Your task to perform on an android device: add a contact in the contacts app Image 0: 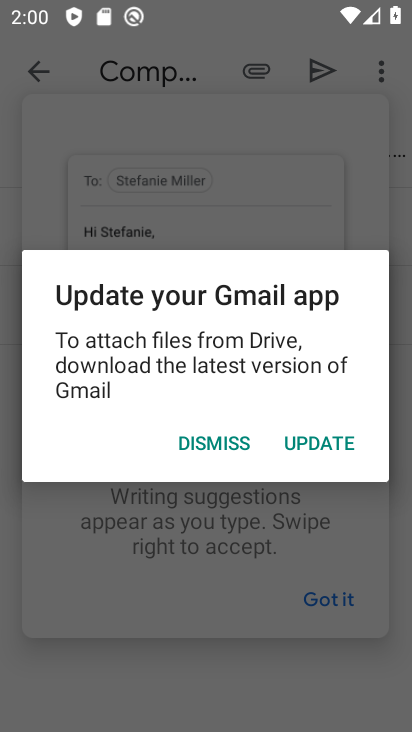
Step 0: press home button
Your task to perform on an android device: add a contact in the contacts app Image 1: 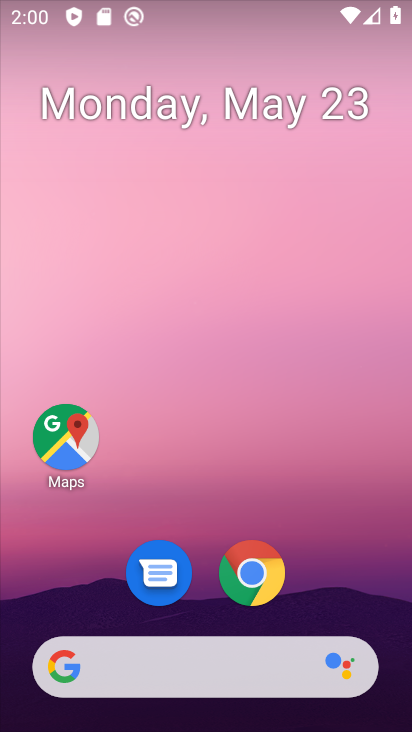
Step 1: drag from (378, 595) to (357, 123)
Your task to perform on an android device: add a contact in the contacts app Image 2: 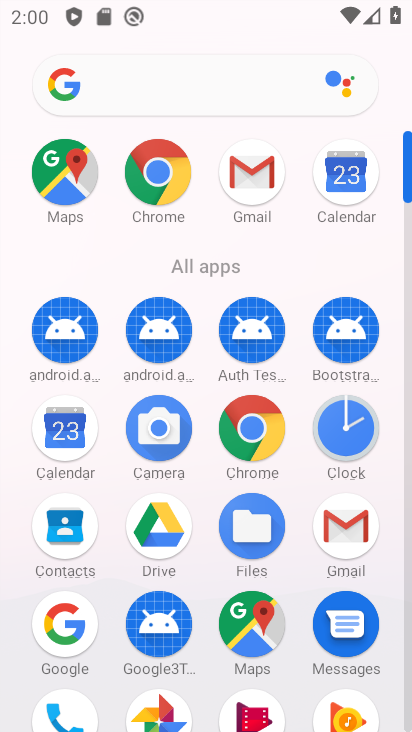
Step 2: click (68, 551)
Your task to perform on an android device: add a contact in the contacts app Image 3: 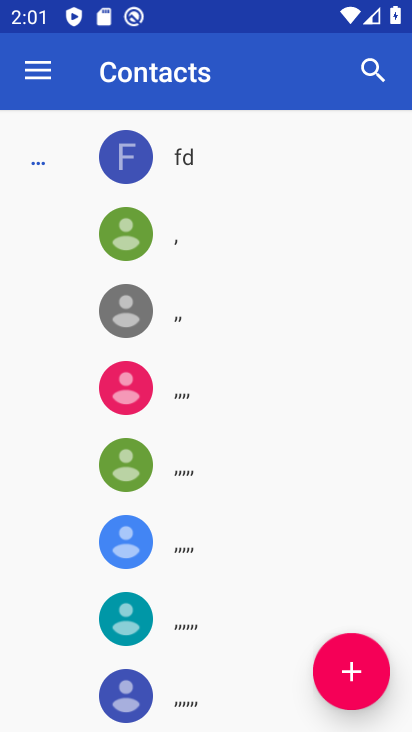
Step 3: click (354, 684)
Your task to perform on an android device: add a contact in the contacts app Image 4: 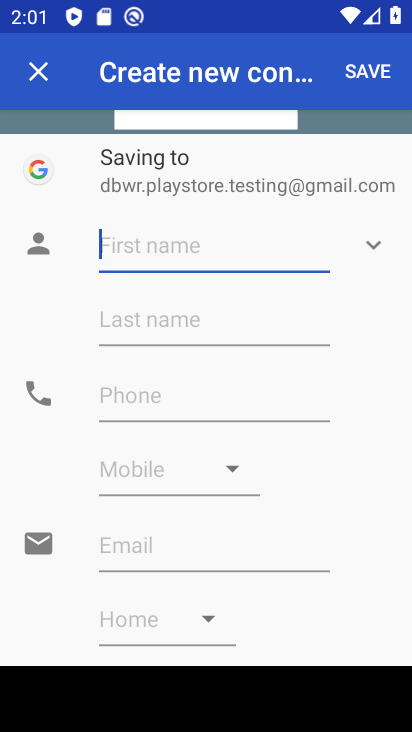
Step 4: click (220, 237)
Your task to perform on an android device: add a contact in the contacts app Image 5: 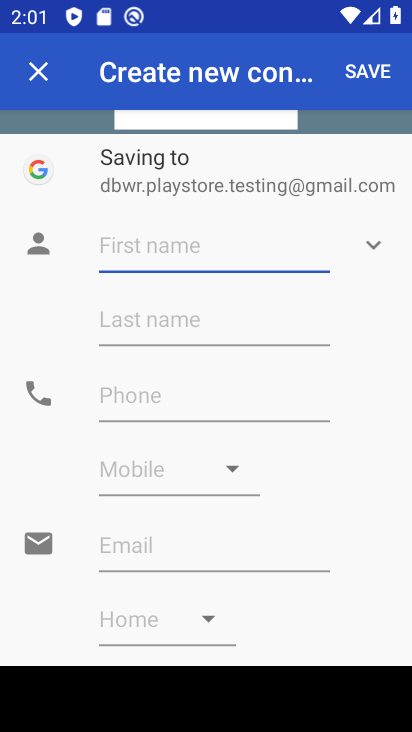
Step 5: type "my love"
Your task to perform on an android device: add a contact in the contacts app Image 6: 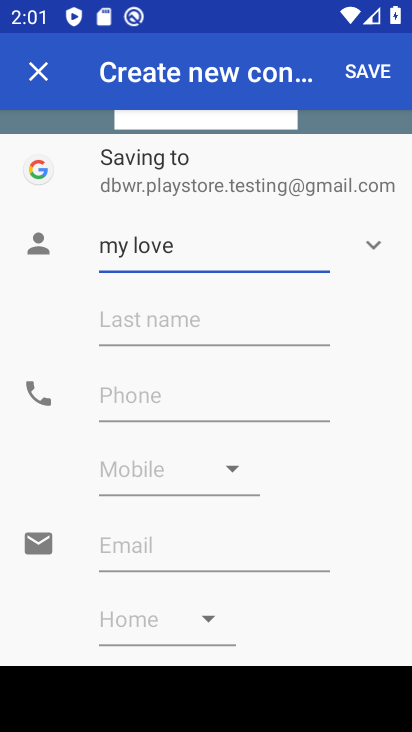
Step 6: click (248, 411)
Your task to perform on an android device: add a contact in the contacts app Image 7: 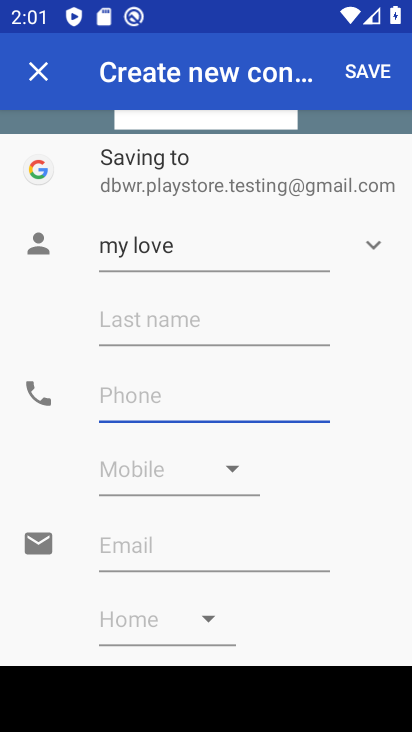
Step 7: type "123456789"
Your task to perform on an android device: add a contact in the contacts app Image 8: 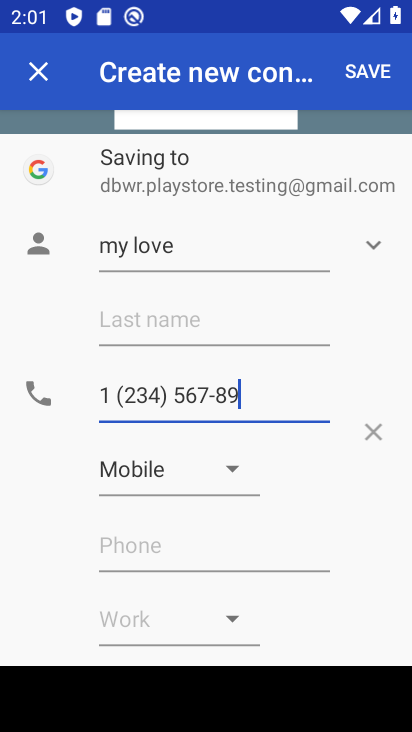
Step 8: click (377, 71)
Your task to perform on an android device: add a contact in the contacts app Image 9: 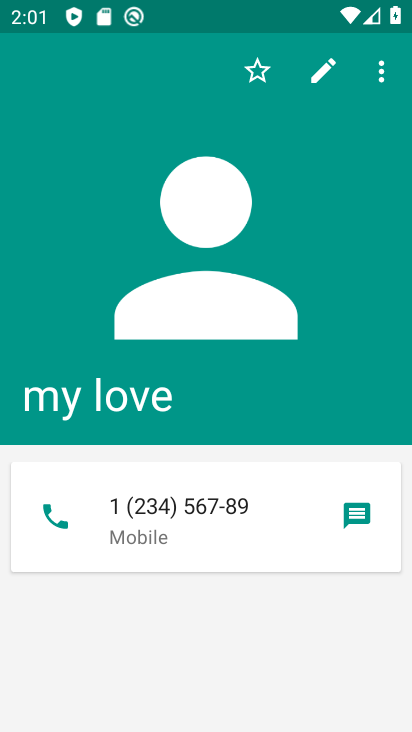
Step 9: task complete